Your task to perform on an android device: Open Yahoo.com Image 0: 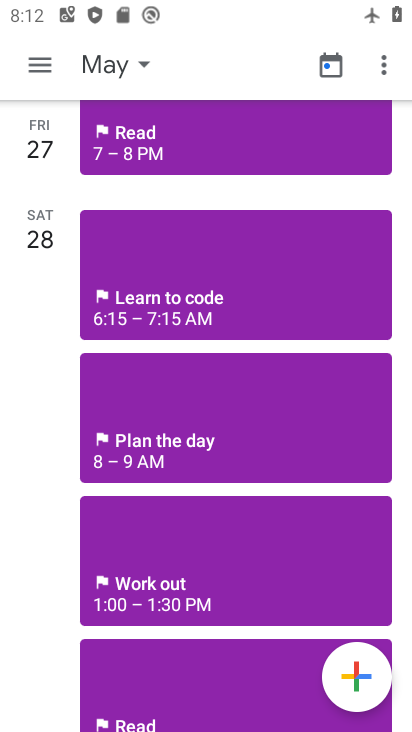
Step 0: press home button
Your task to perform on an android device: Open Yahoo.com Image 1: 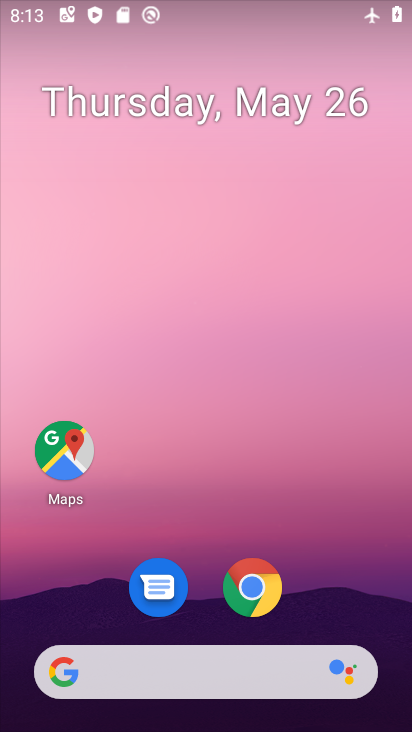
Step 1: click (237, 577)
Your task to perform on an android device: Open Yahoo.com Image 2: 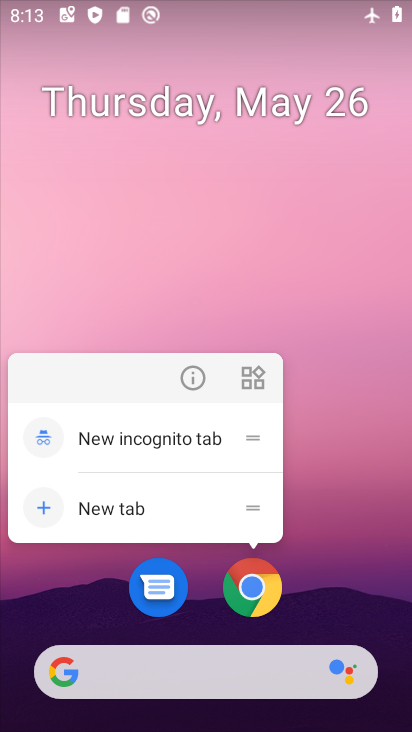
Step 2: click (244, 609)
Your task to perform on an android device: Open Yahoo.com Image 3: 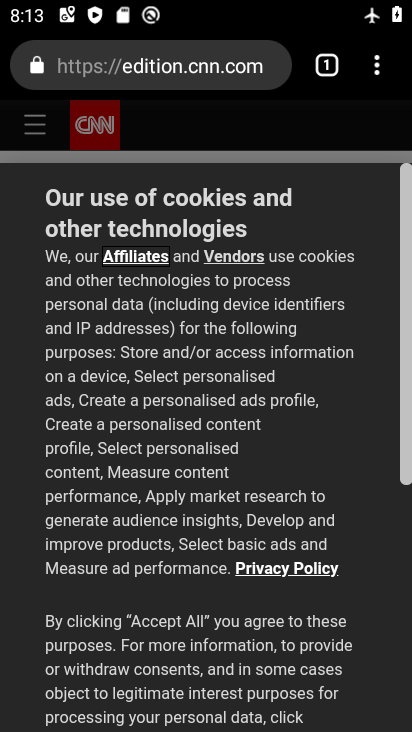
Step 3: click (324, 68)
Your task to perform on an android device: Open Yahoo.com Image 4: 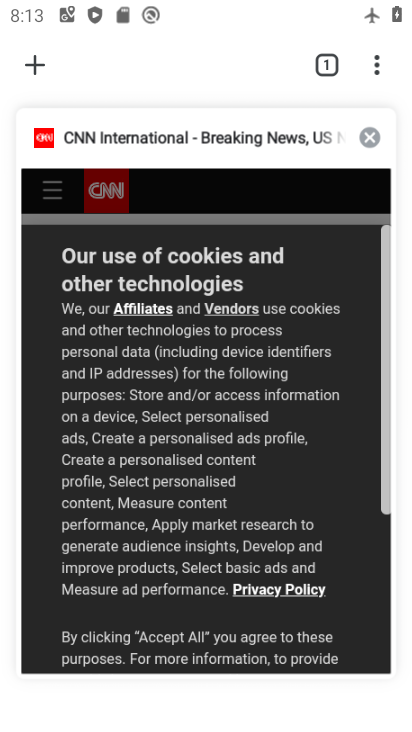
Step 4: click (34, 57)
Your task to perform on an android device: Open Yahoo.com Image 5: 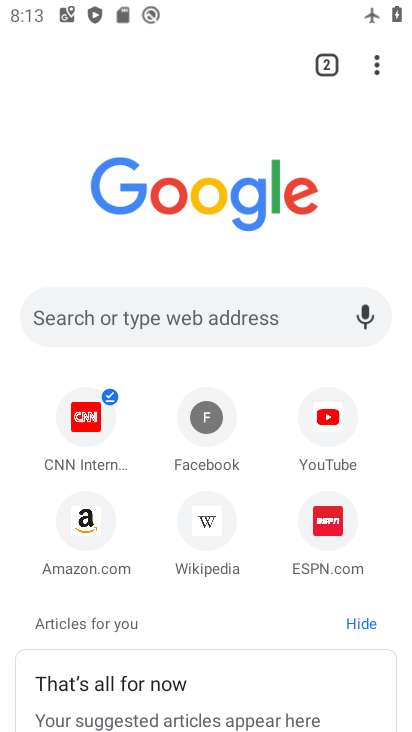
Step 5: click (199, 314)
Your task to perform on an android device: Open Yahoo.com Image 6: 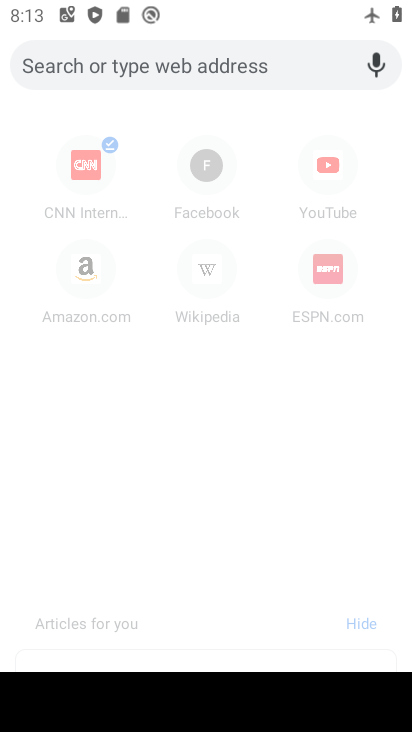
Step 6: type "Yahoo.com"
Your task to perform on an android device: Open Yahoo.com Image 7: 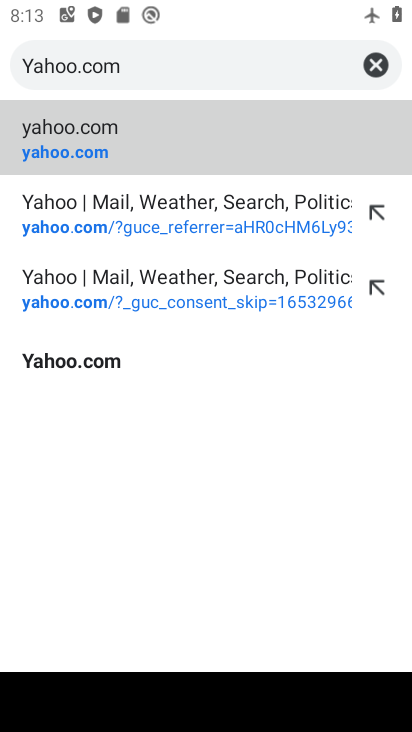
Step 7: click (224, 135)
Your task to perform on an android device: Open Yahoo.com Image 8: 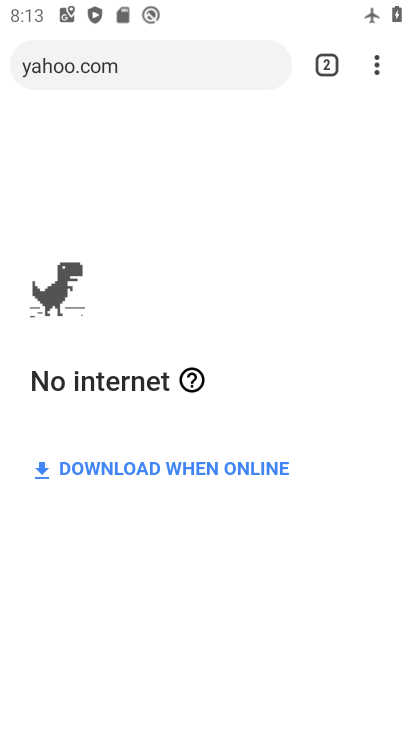
Step 8: task complete